Your task to perform on an android device: add a label to a message in the gmail app Image 0: 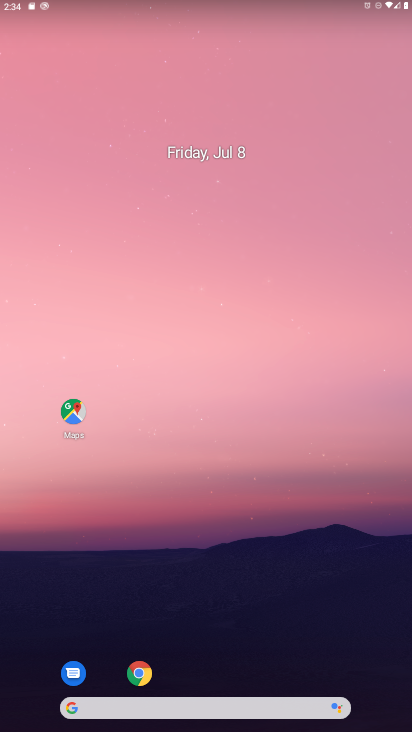
Step 0: drag from (380, 666) to (329, 120)
Your task to perform on an android device: add a label to a message in the gmail app Image 1: 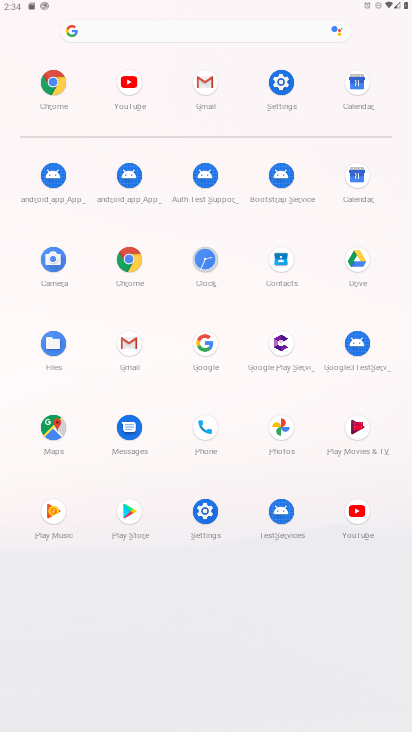
Step 1: click (117, 344)
Your task to perform on an android device: add a label to a message in the gmail app Image 2: 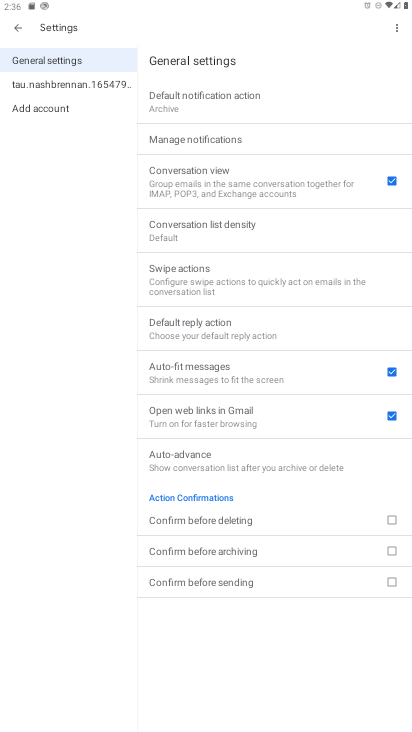
Step 2: task complete